Your task to perform on an android device: Open maps Image 0: 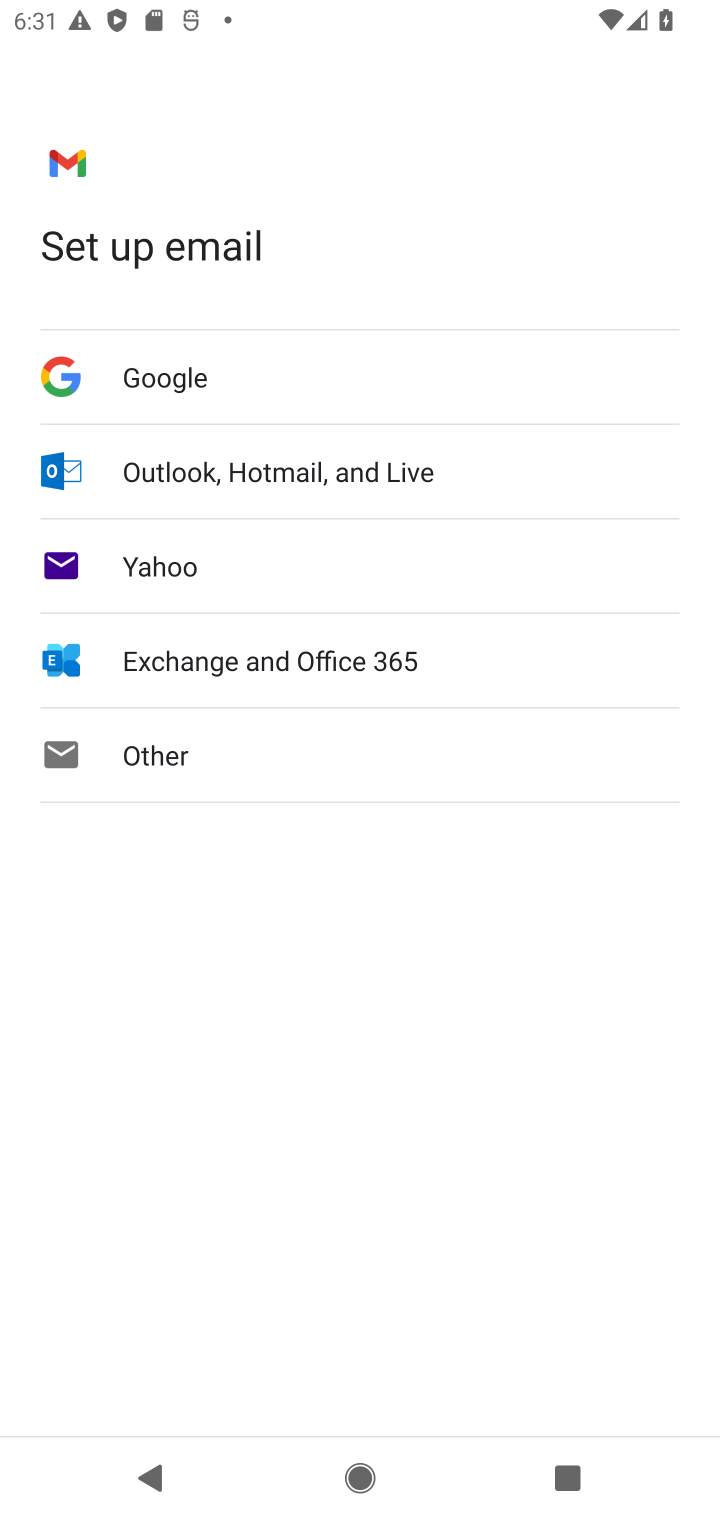
Step 0: press home button
Your task to perform on an android device: Open maps Image 1: 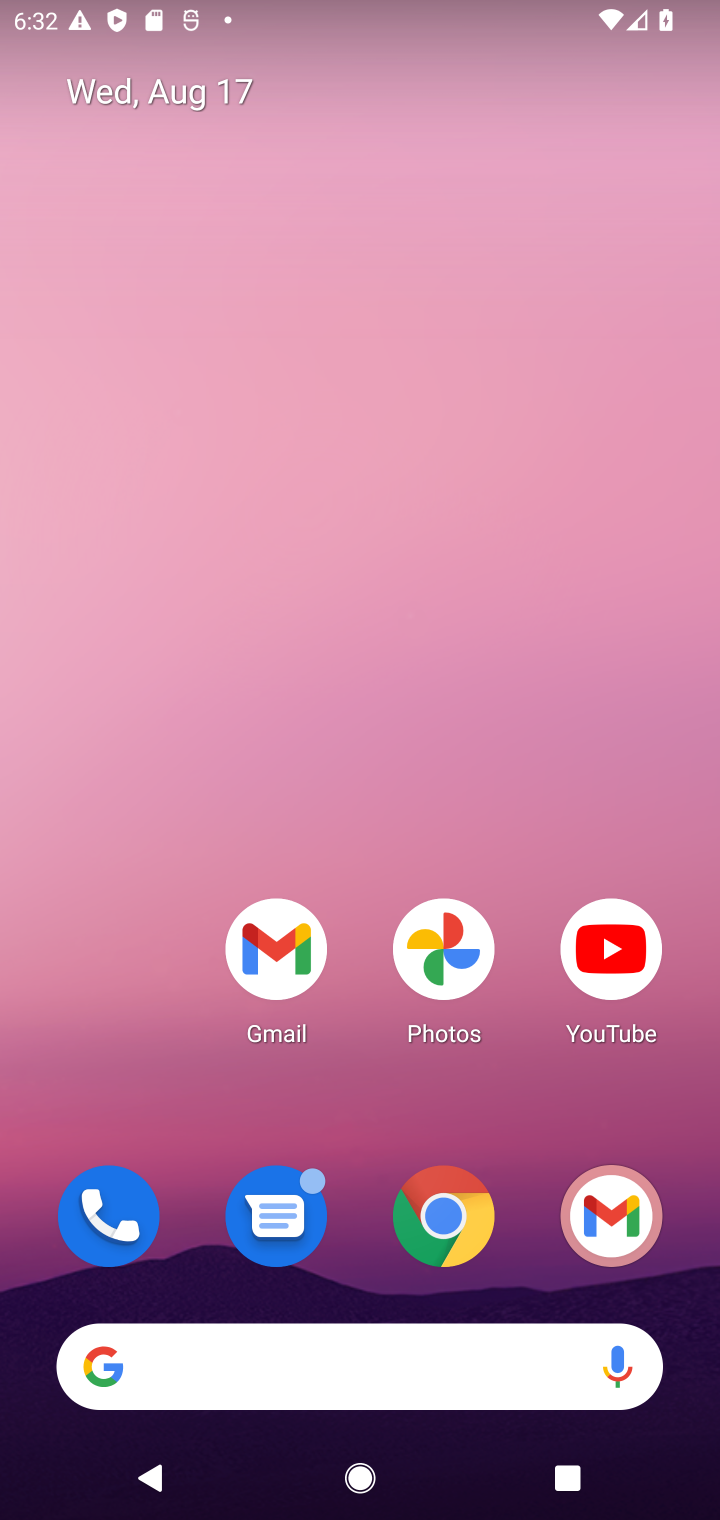
Step 1: drag from (366, 1101) to (137, 3)
Your task to perform on an android device: Open maps Image 2: 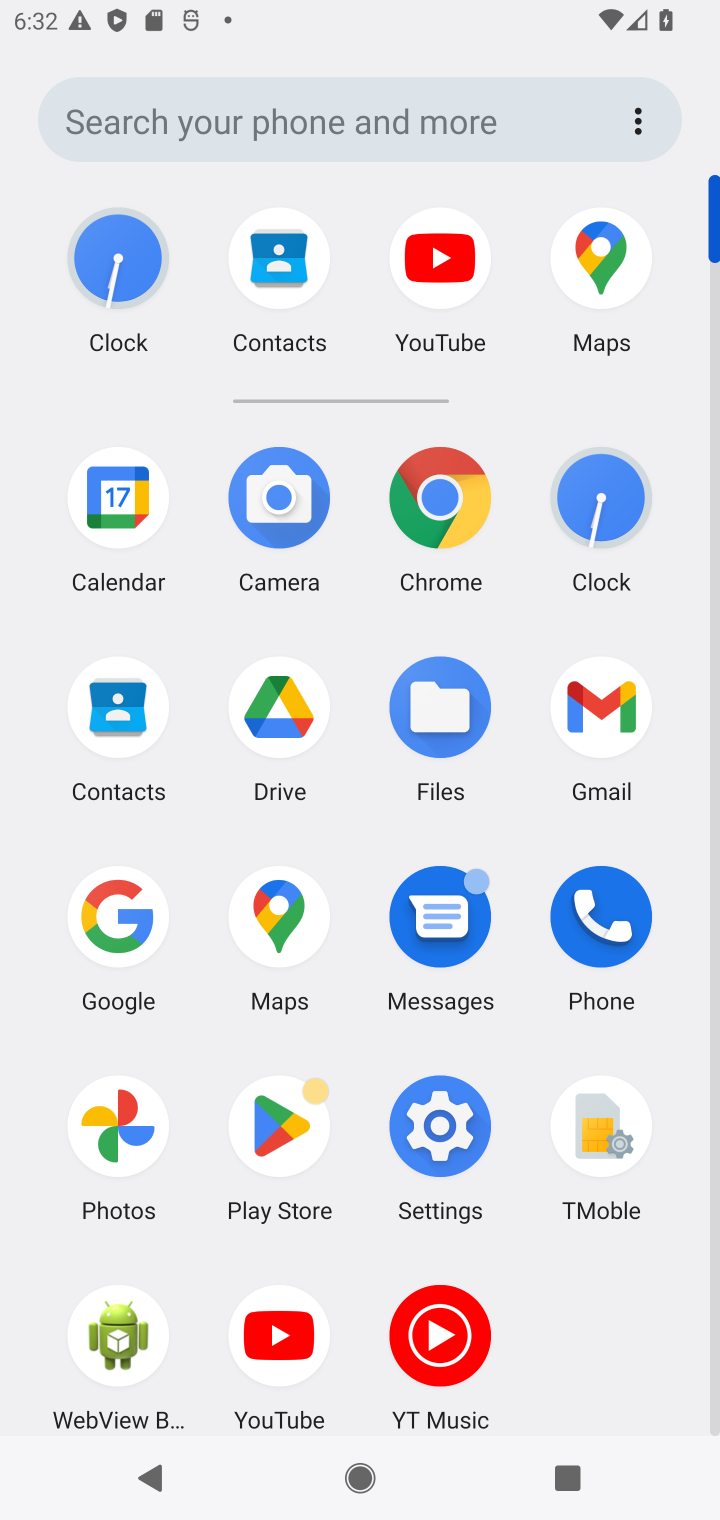
Step 2: click (281, 903)
Your task to perform on an android device: Open maps Image 3: 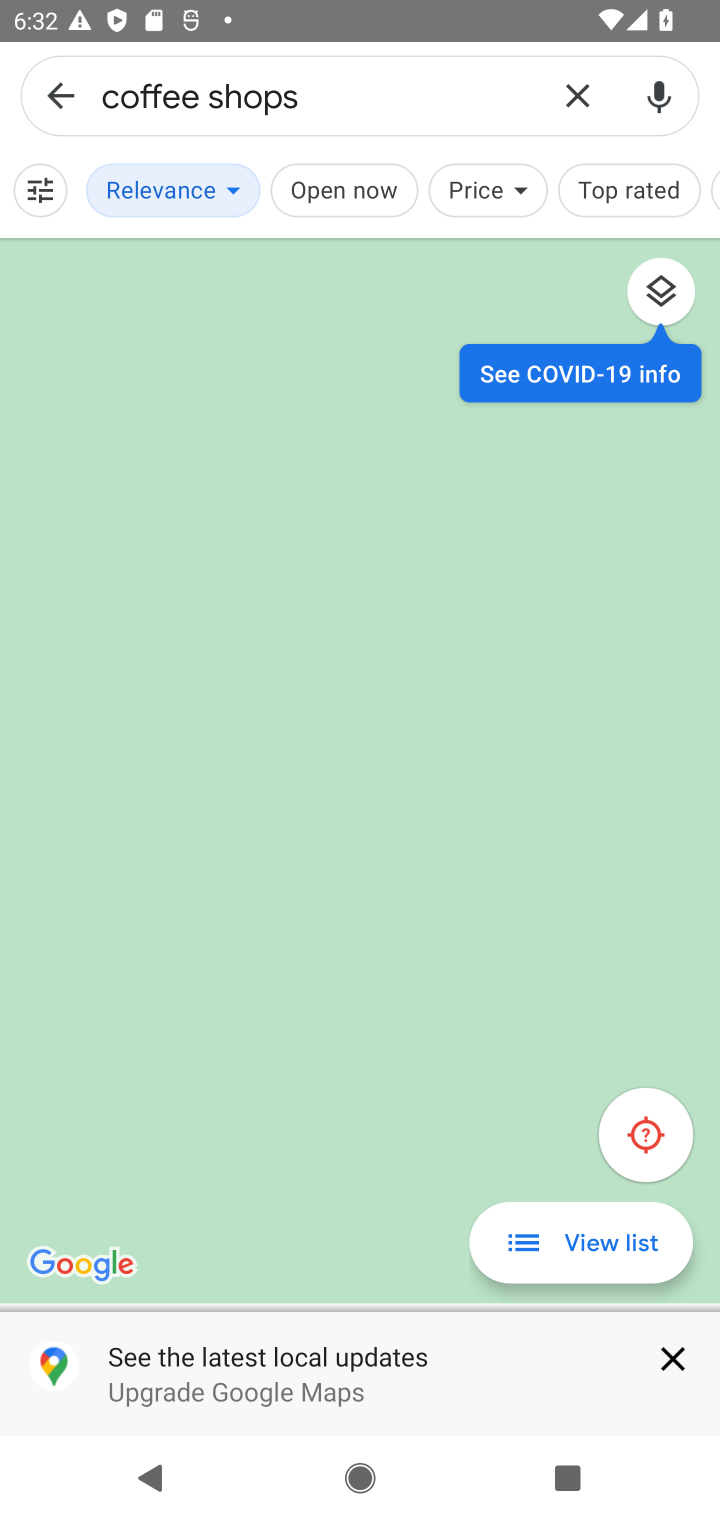
Step 3: press home button
Your task to perform on an android device: Open maps Image 4: 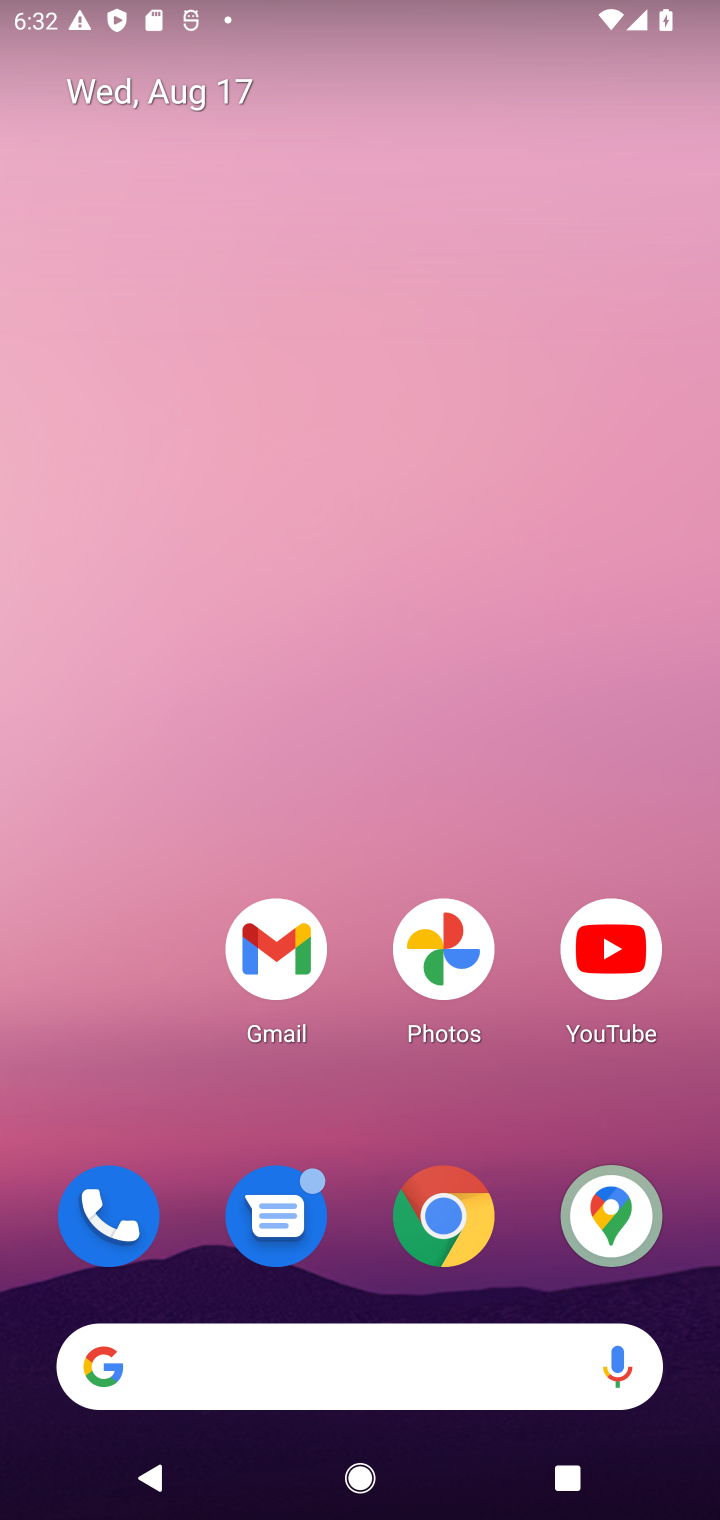
Step 4: drag from (555, 1072) to (572, 0)
Your task to perform on an android device: Open maps Image 5: 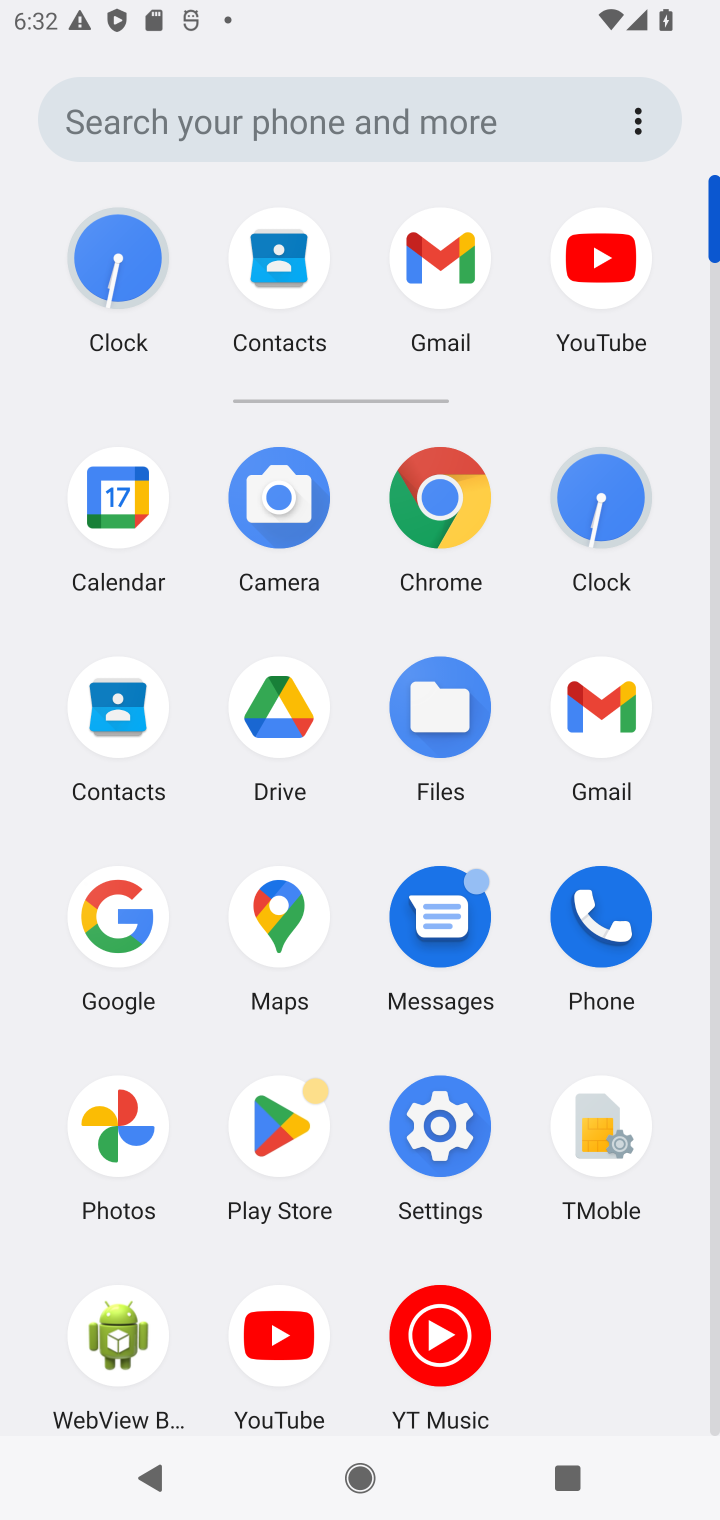
Step 5: click (280, 921)
Your task to perform on an android device: Open maps Image 6: 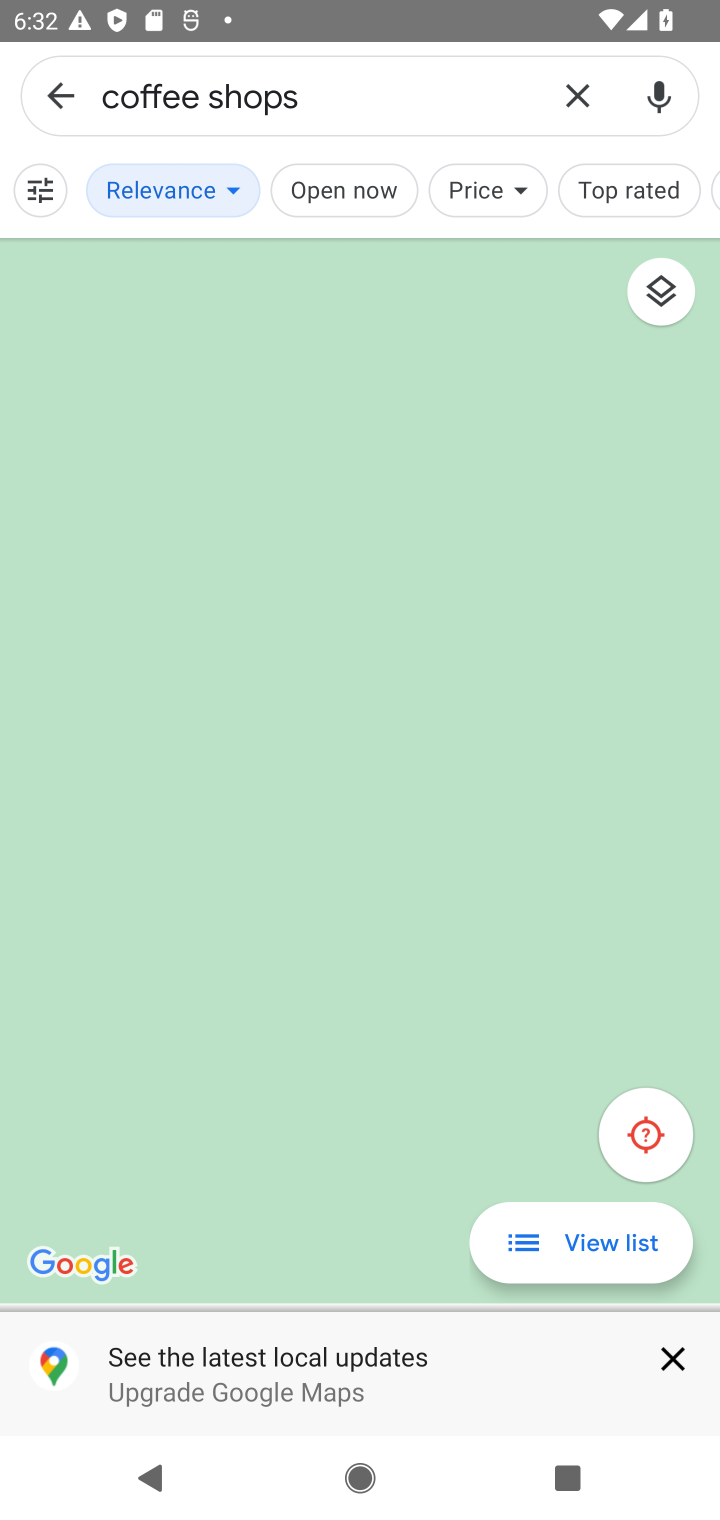
Step 6: task complete